Your task to perform on an android device: toggle location history Image 0: 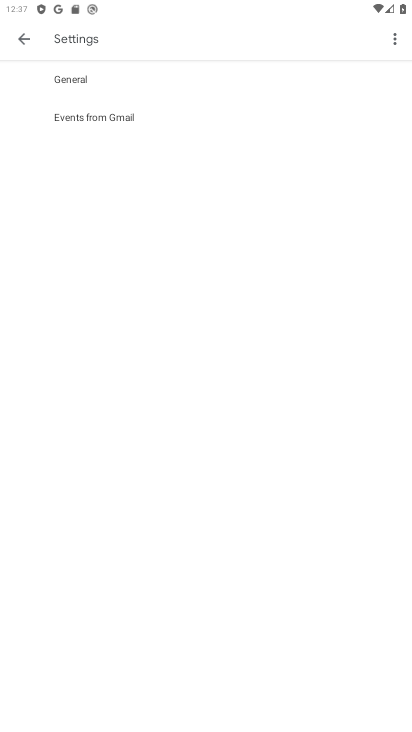
Step 0: click (19, 28)
Your task to perform on an android device: toggle location history Image 1: 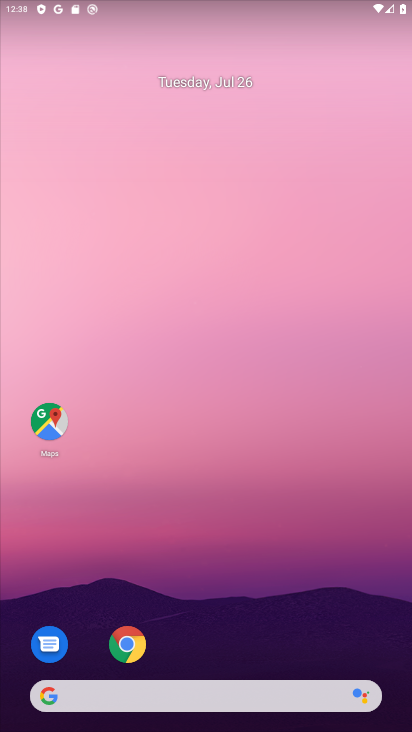
Step 1: click (25, 36)
Your task to perform on an android device: toggle location history Image 2: 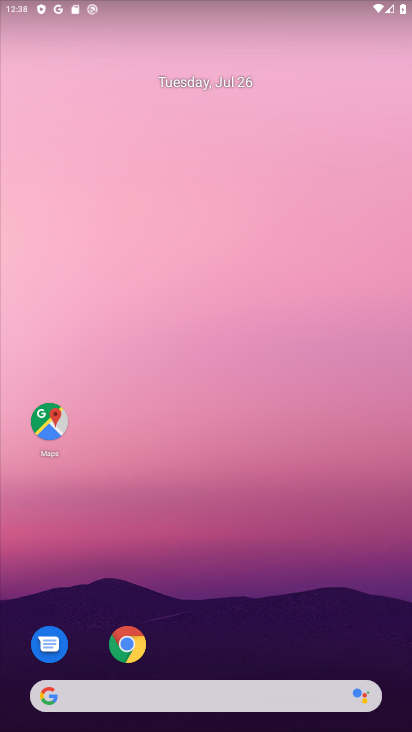
Step 2: drag from (158, 186) to (267, 39)
Your task to perform on an android device: toggle location history Image 3: 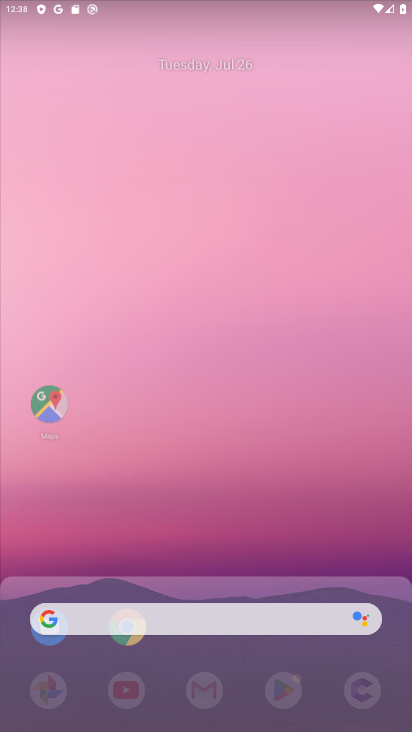
Step 3: drag from (209, 154) to (199, 8)
Your task to perform on an android device: toggle location history Image 4: 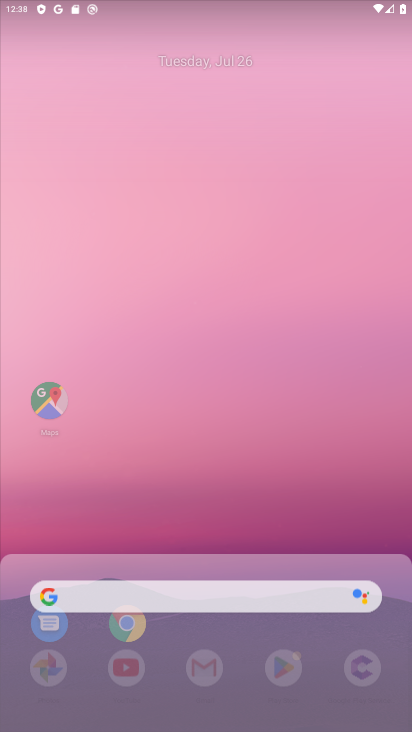
Step 4: drag from (217, 394) to (178, 5)
Your task to perform on an android device: toggle location history Image 5: 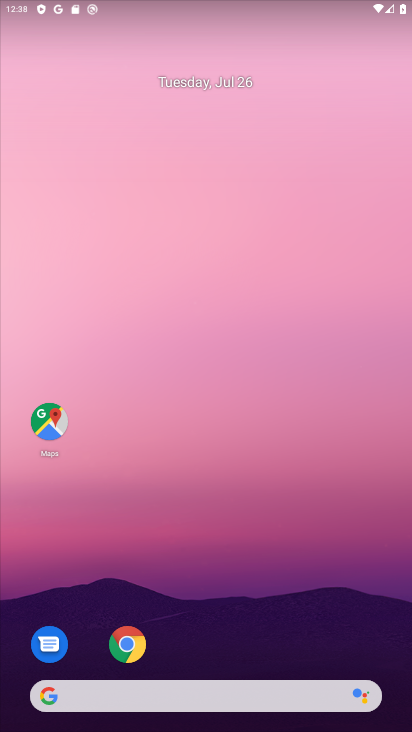
Step 5: drag from (146, 386) to (139, 107)
Your task to perform on an android device: toggle location history Image 6: 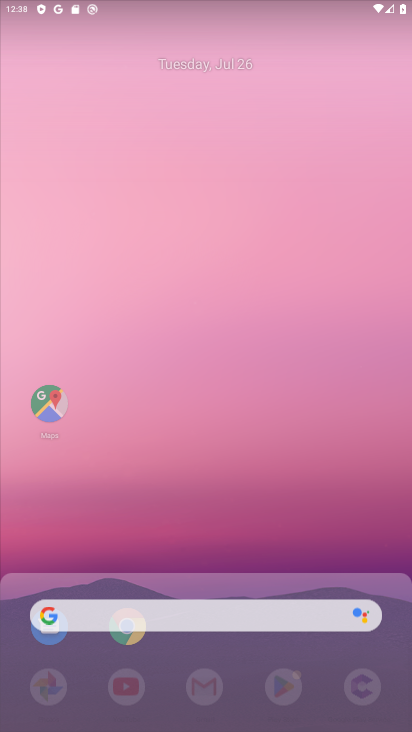
Step 6: drag from (247, 417) to (211, 13)
Your task to perform on an android device: toggle location history Image 7: 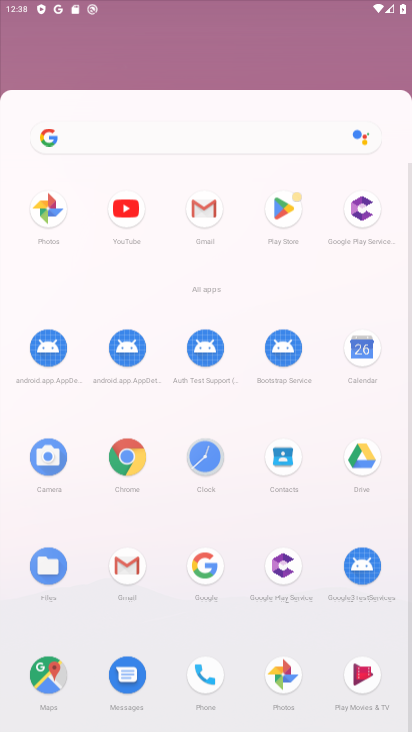
Step 7: drag from (217, 306) to (246, 109)
Your task to perform on an android device: toggle location history Image 8: 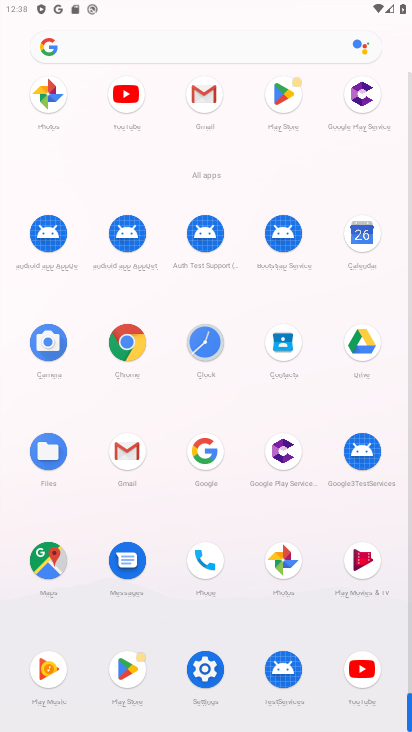
Step 8: click (201, 679)
Your task to perform on an android device: toggle location history Image 9: 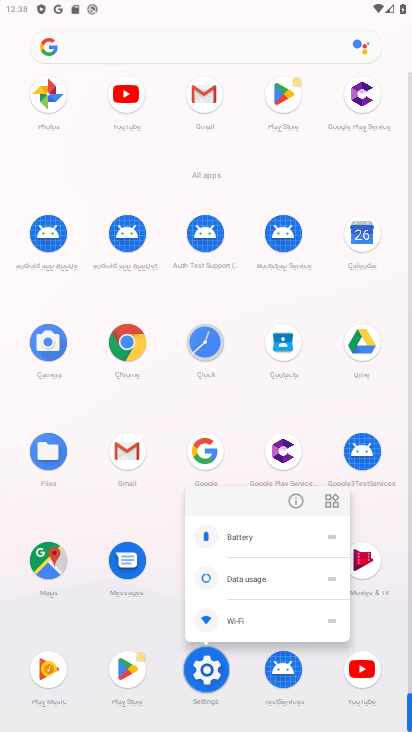
Step 9: click (206, 680)
Your task to perform on an android device: toggle location history Image 10: 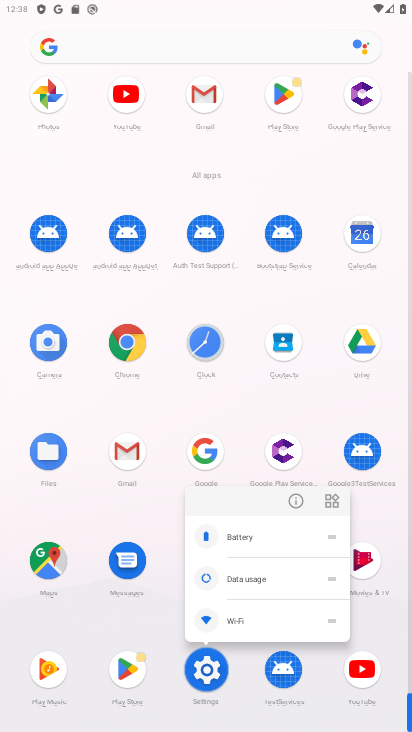
Step 10: click (206, 680)
Your task to perform on an android device: toggle location history Image 11: 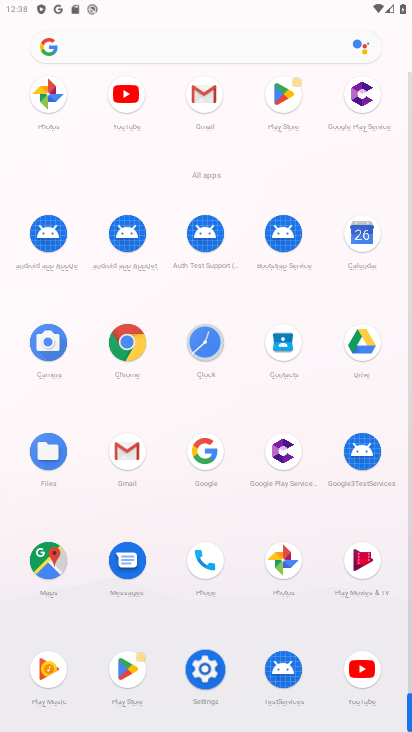
Step 11: click (204, 673)
Your task to perform on an android device: toggle location history Image 12: 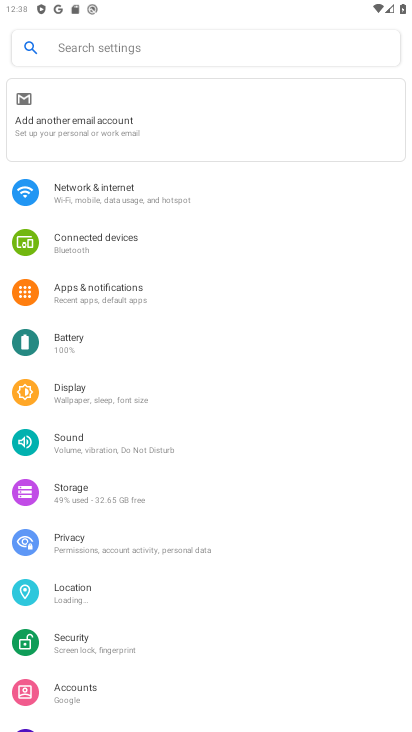
Step 12: click (70, 497)
Your task to perform on an android device: toggle location history Image 13: 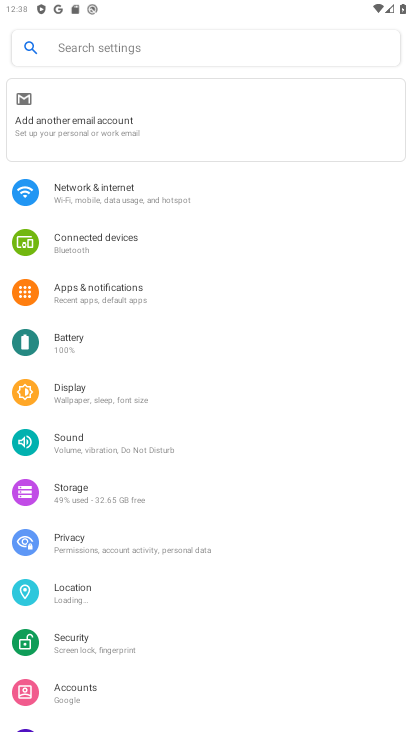
Step 13: click (73, 508)
Your task to perform on an android device: toggle location history Image 14: 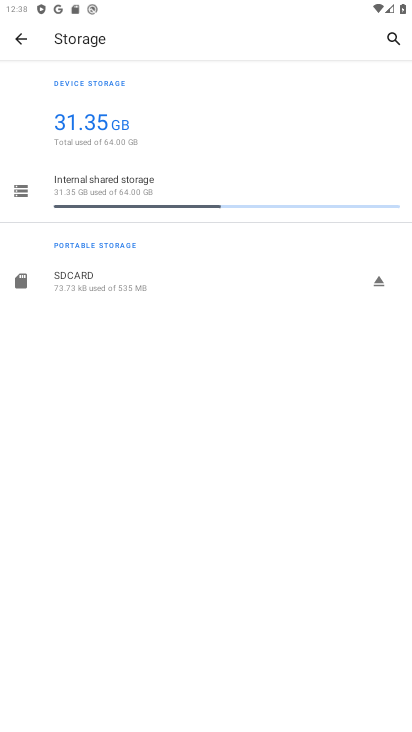
Step 14: click (71, 510)
Your task to perform on an android device: toggle location history Image 15: 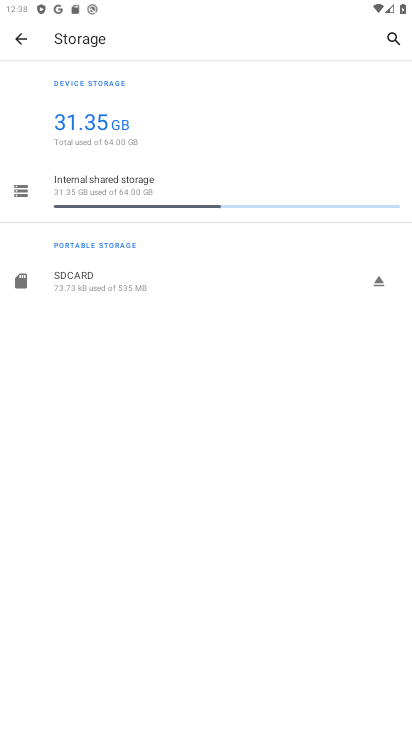
Step 15: click (76, 514)
Your task to perform on an android device: toggle location history Image 16: 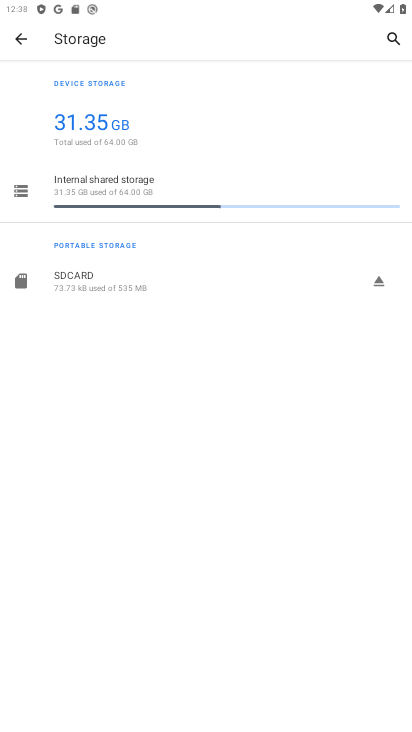
Step 16: click (76, 514)
Your task to perform on an android device: toggle location history Image 17: 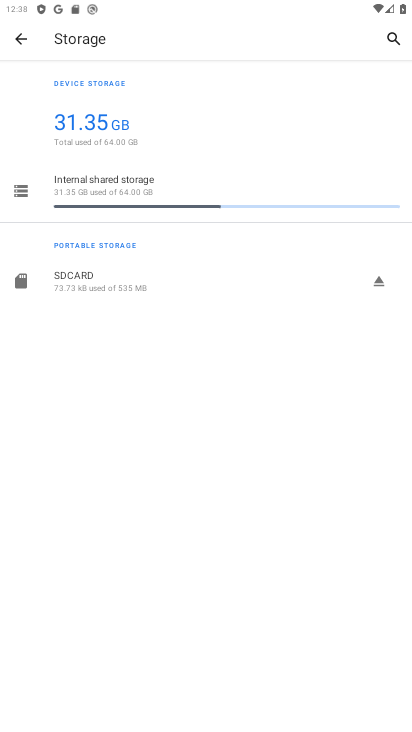
Step 17: click (67, 496)
Your task to perform on an android device: toggle location history Image 18: 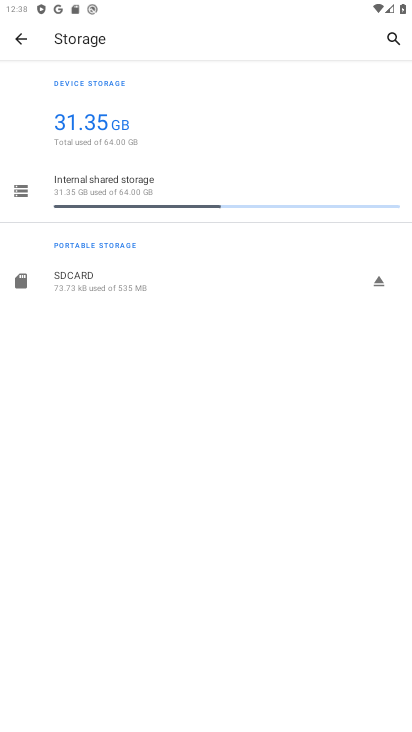
Step 18: click (25, 38)
Your task to perform on an android device: toggle location history Image 19: 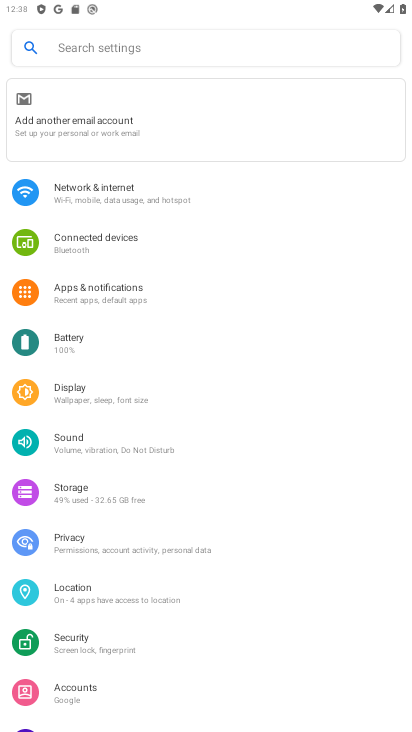
Step 19: click (110, 290)
Your task to perform on an android device: toggle location history Image 20: 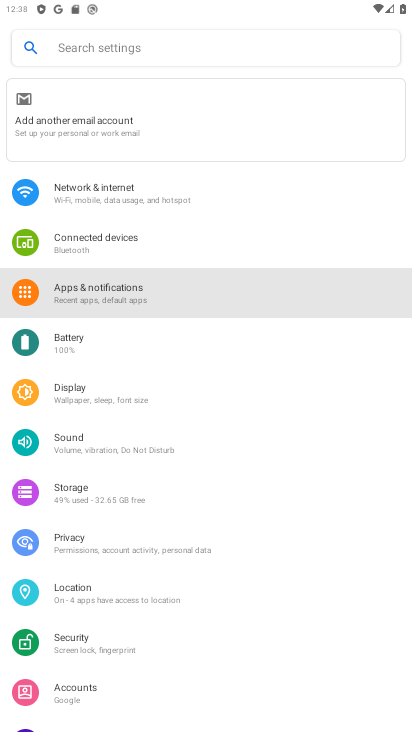
Step 20: click (110, 290)
Your task to perform on an android device: toggle location history Image 21: 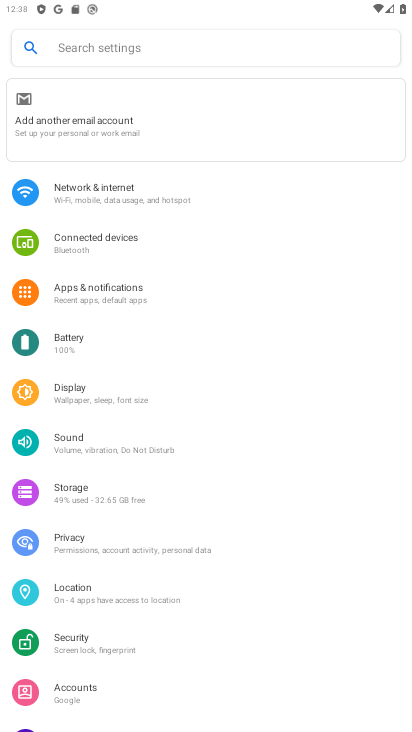
Step 21: click (110, 290)
Your task to perform on an android device: toggle location history Image 22: 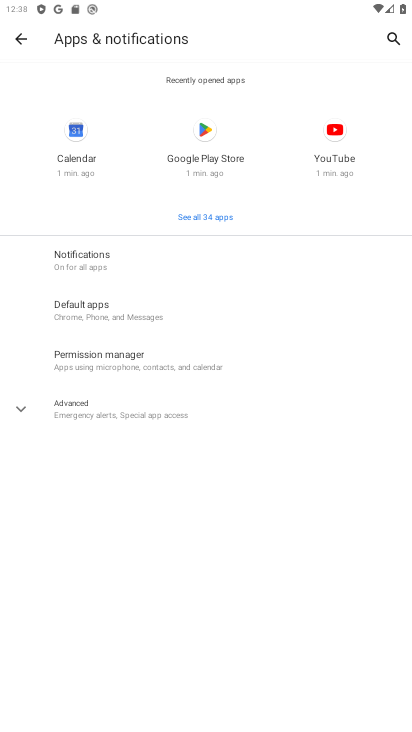
Step 22: click (15, 32)
Your task to perform on an android device: toggle location history Image 23: 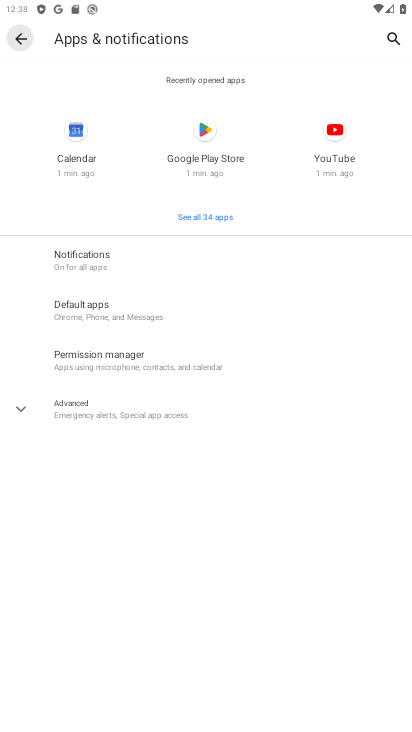
Step 23: click (11, 33)
Your task to perform on an android device: toggle location history Image 24: 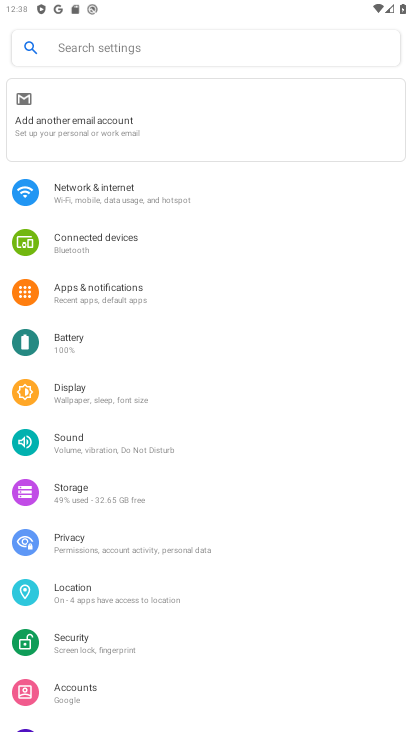
Step 24: click (88, 590)
Your task to perform on an android device: toggle location history Image 25: 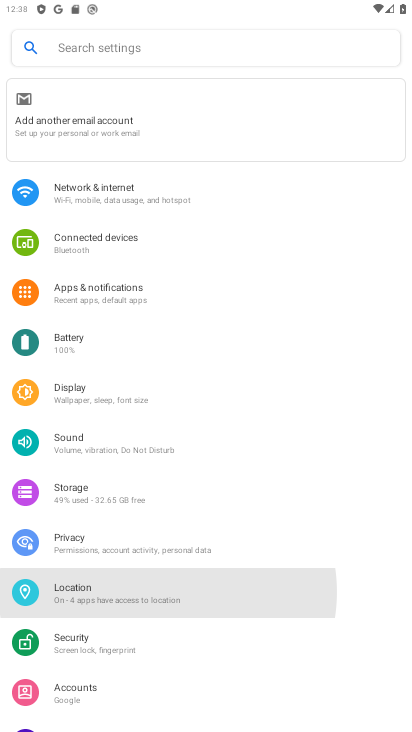
Step 25: click (91, 585)
Your task to perform on an android device: toggle location history Image 26: 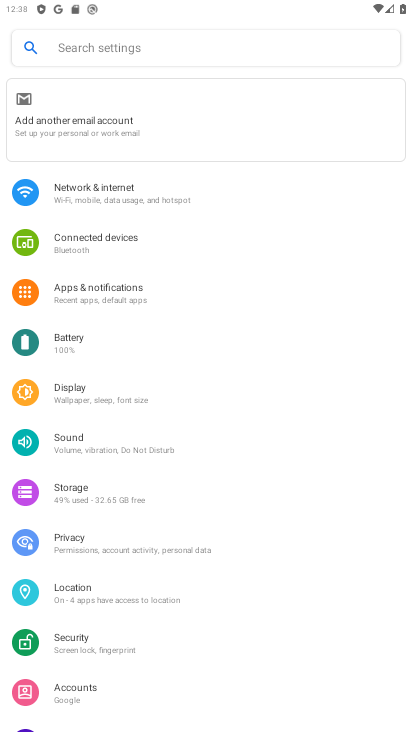
Step 26: click (88, 582)
Your task to perform on an android device: toggle location history Image 27: 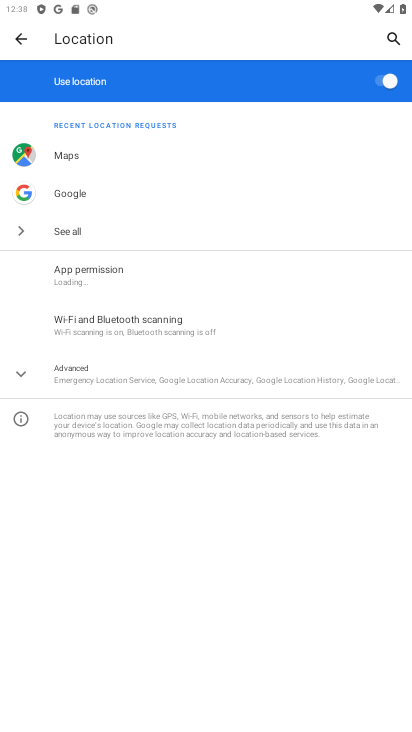
Step 27: click (57, 372)
Your task to perform on an android device: toggle location history Image 28: 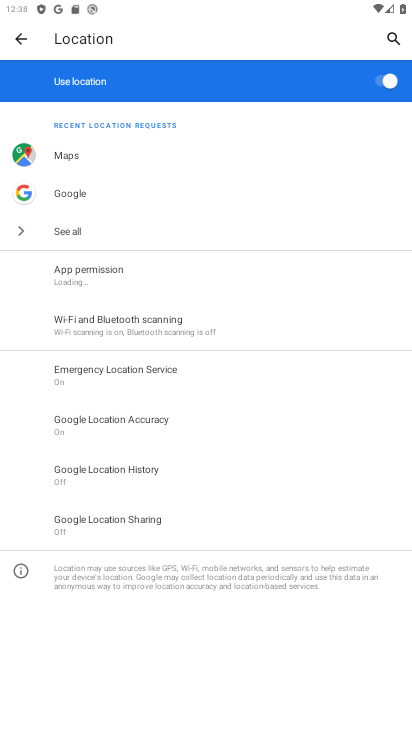
Step 28: click (128, 413)
Your task to perform on an android device: toggle location history Image 29: 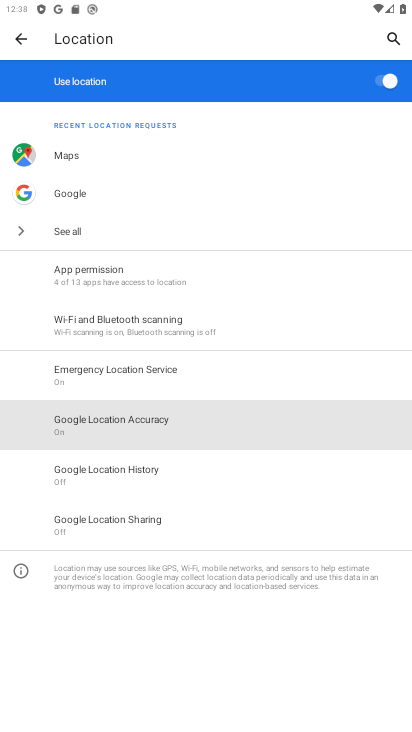
Step 29: click (128, 413)
Your task to perform on an android device: toggle location history Image 30: 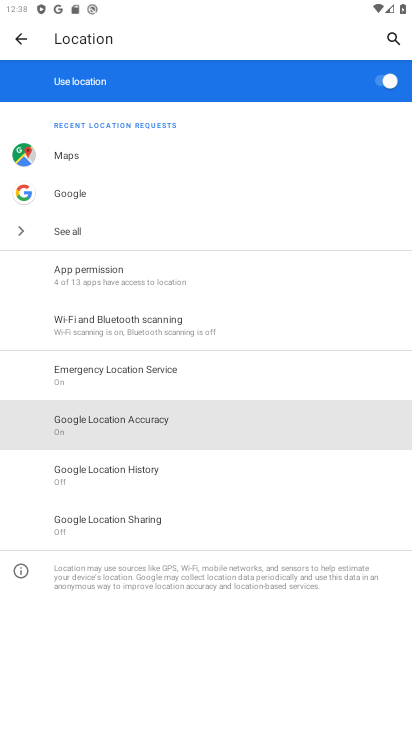
Step 30: click (128, 413)
Your task to perform on an android device: toggle location history Image 31: 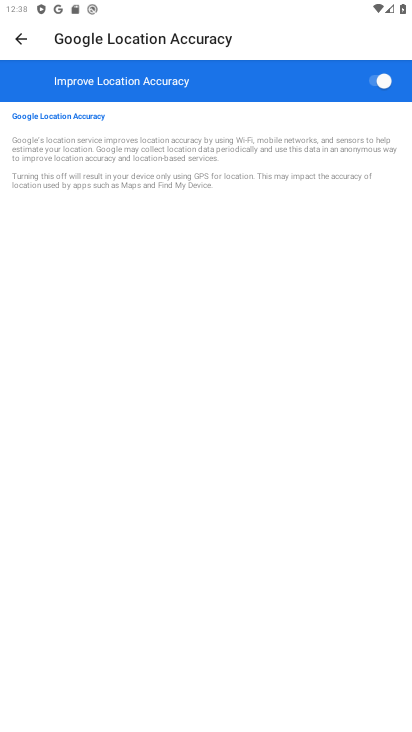
Step 31: click (378, 86)
Your task to perform on an android device: toggle location history Image 32: 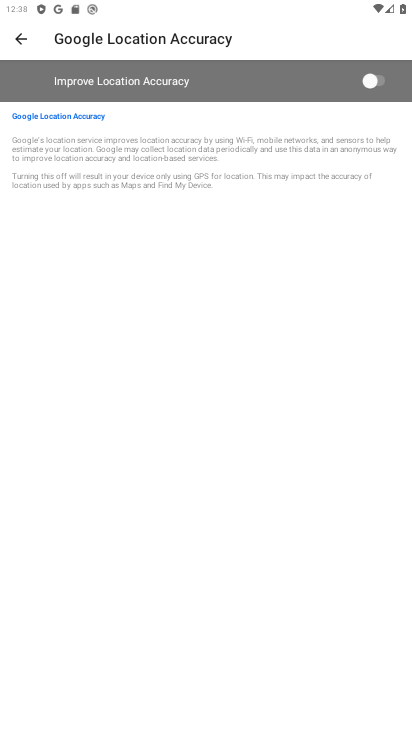
Step 32: task complete